Your task to perform on an android device: Open Wikipedia Image 0: 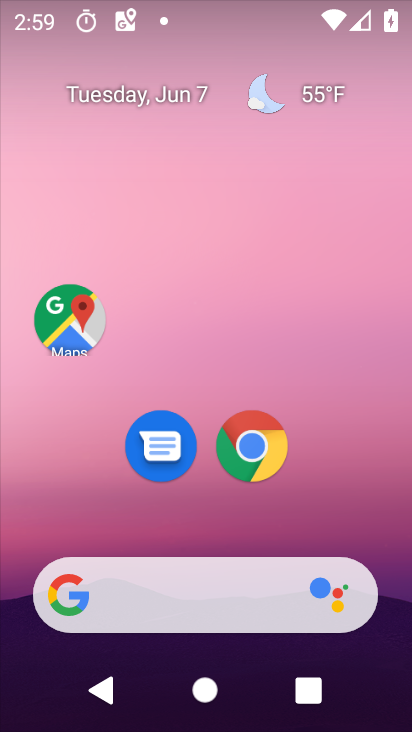
Step 0: click (257, 455)
Your task to perform on an android device: Open Wikipedia Image 1: 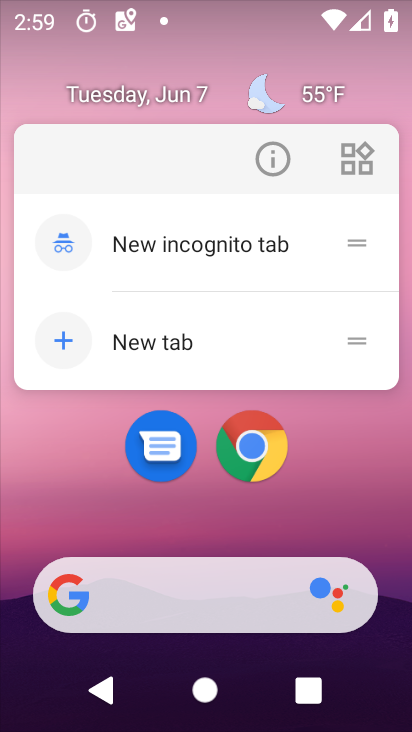
Step 1: click (256, 456)
Your task to perform on an android device: Open Wikipedia Image 2: 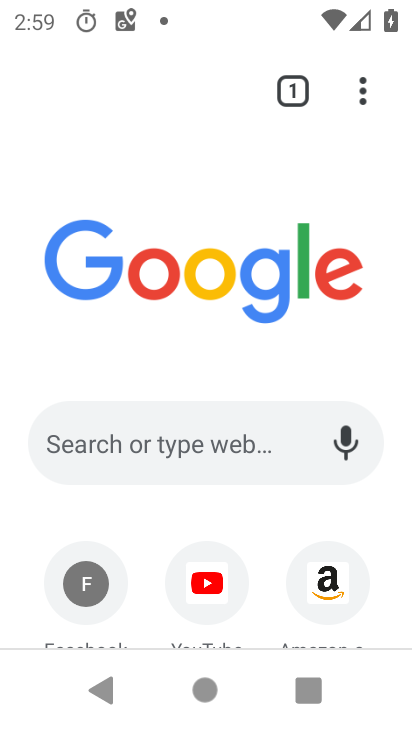
Step 2: drag from (198, 496) to (230, 219)
Your task to perform on an android device: Open Wikipedia Image 3: 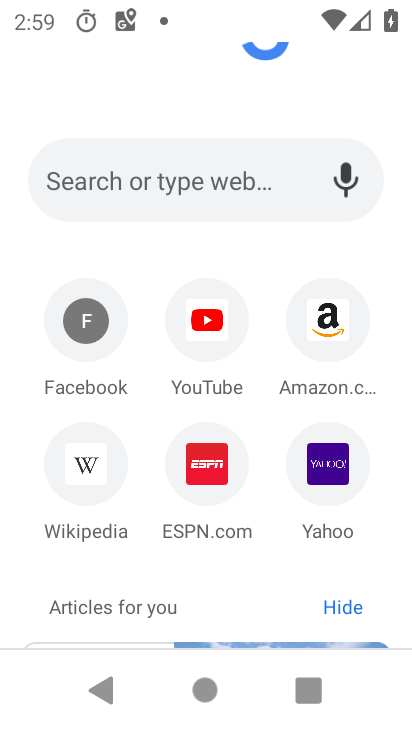
Step 3: click (84, 478)
Your task to perform on an android device: Open Wikipedia Image 4: 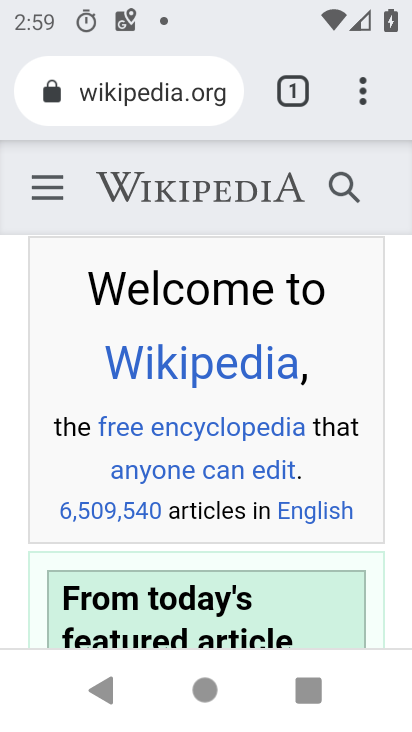
Step 4: task complete